Your task to perform on an android device: Search for vegetarian restaurants on Maps Image 0: 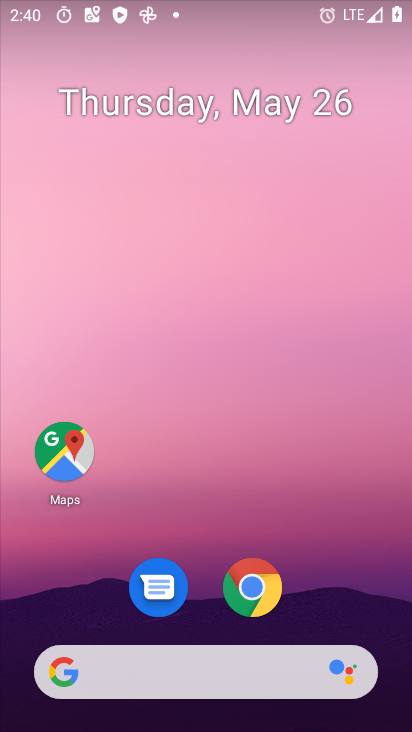
Step 0: drag from (372, 611) to (362, 213)
Your task to perform on an android device: Search for vegetarian restaurants on Maps Image 1: 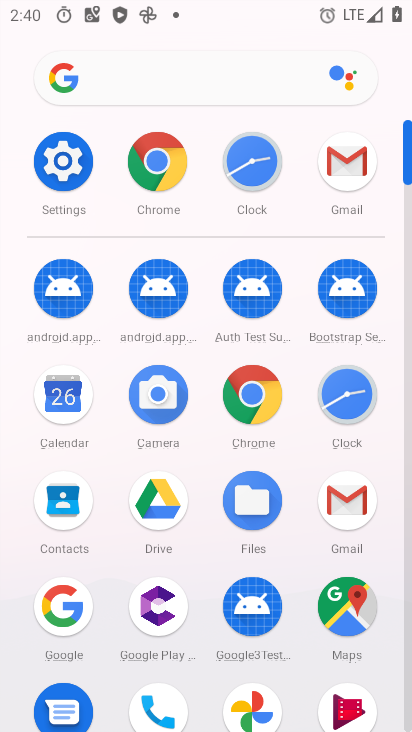
Step 1: click (350, 613)
Your task to perform on an android device: Search for vegetarian restaurants on Maps Image 2: 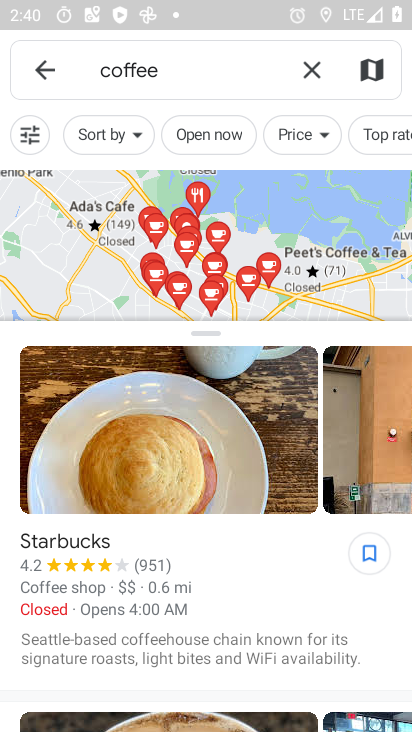
Step 2: click (308, 70)
Your task to perform on an android device: Search for vegetarian restaurants on Maps Image 3: 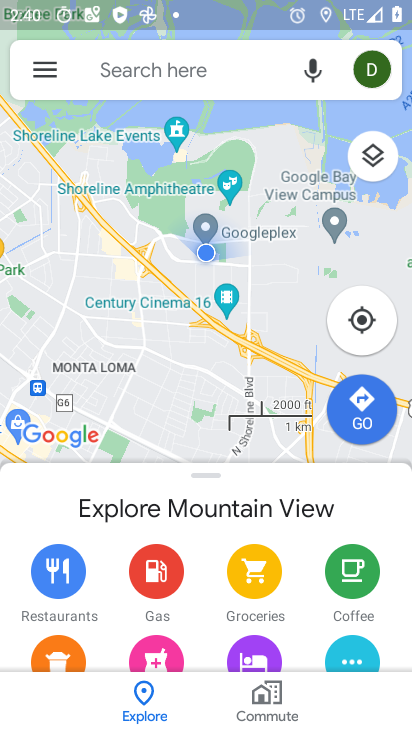
Step 3: click (177, 65)
Your task to perform on an android device: Search for vegetarian restaurants on Maps Image 4: 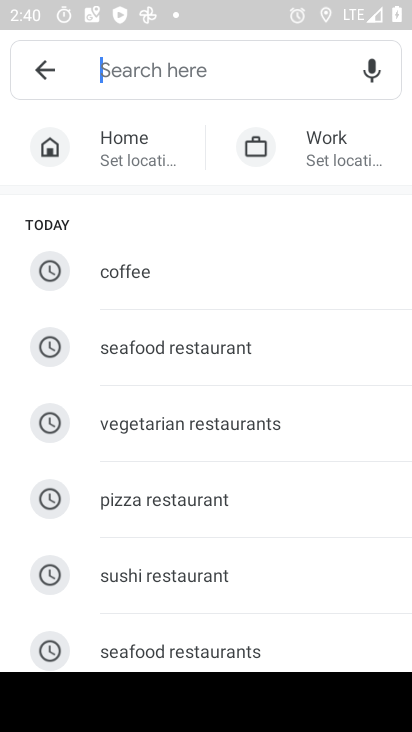
Step 4: type "vegetrain restaurants"
Your task to perform on an android device: Search for vegetarian restaurants on Maps Image 5: 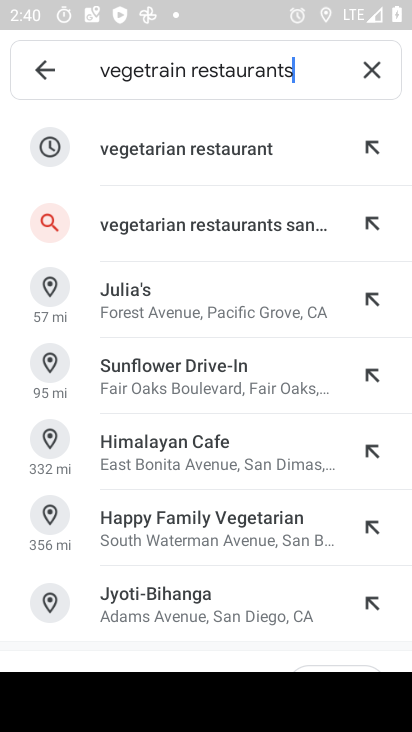
Step 5: click (257, 154)
Your task to perform on an android device: Search for vegetarian restaurants on Maps Image 6: 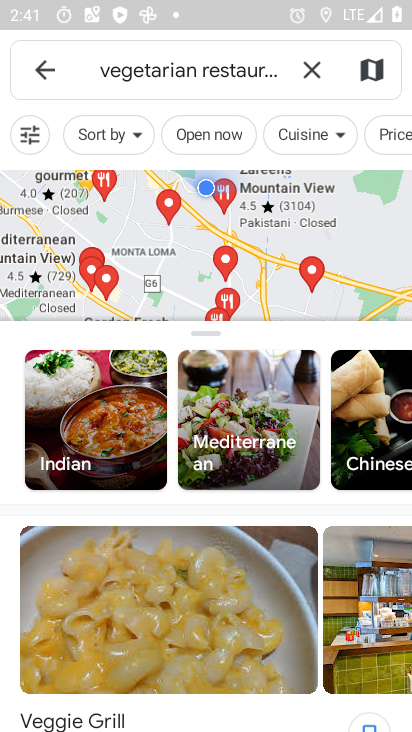
Step 6: task complete